Your task to perform on an android device: uninstall "File Manager" Image 0: 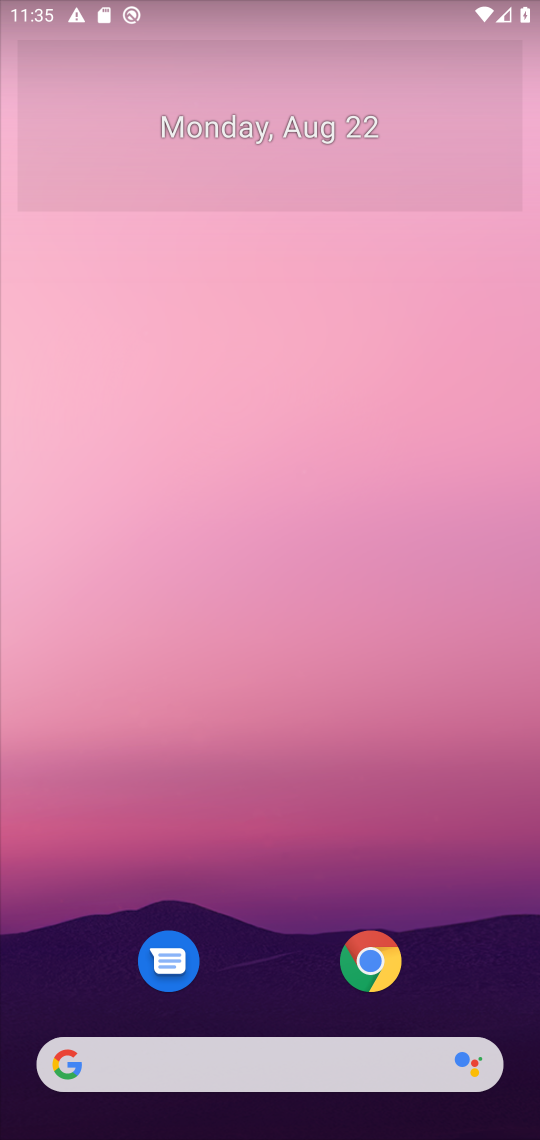
Step 0: drag from (256, 986) to (485, 6)
Your task to perform on an android device: uninstall "File Manager" Image 1: 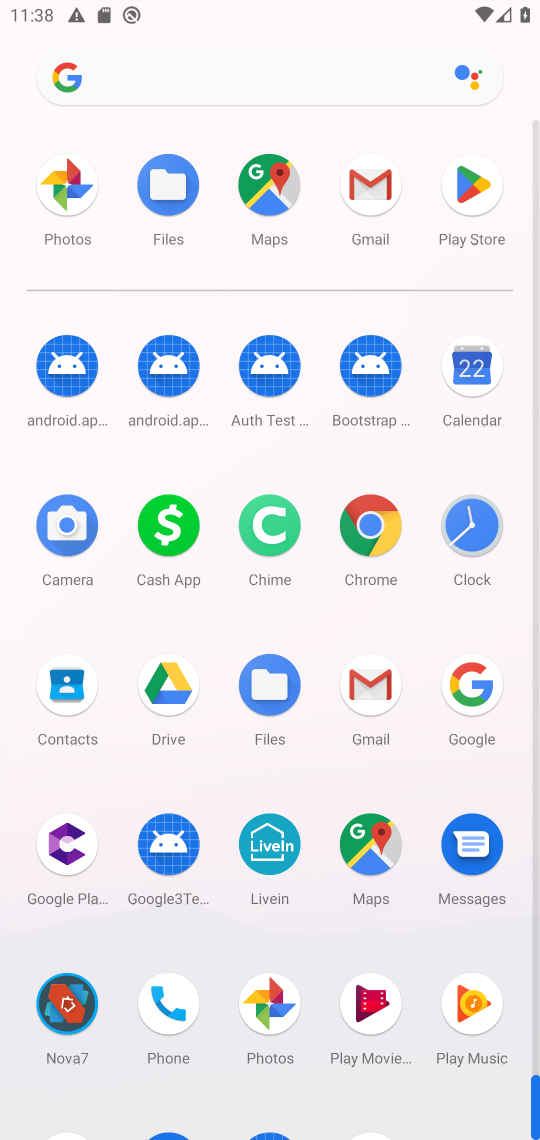
Step 1: click (179, 219)
Your task to perform on an android device: uninstall "File Manager" Image 2: 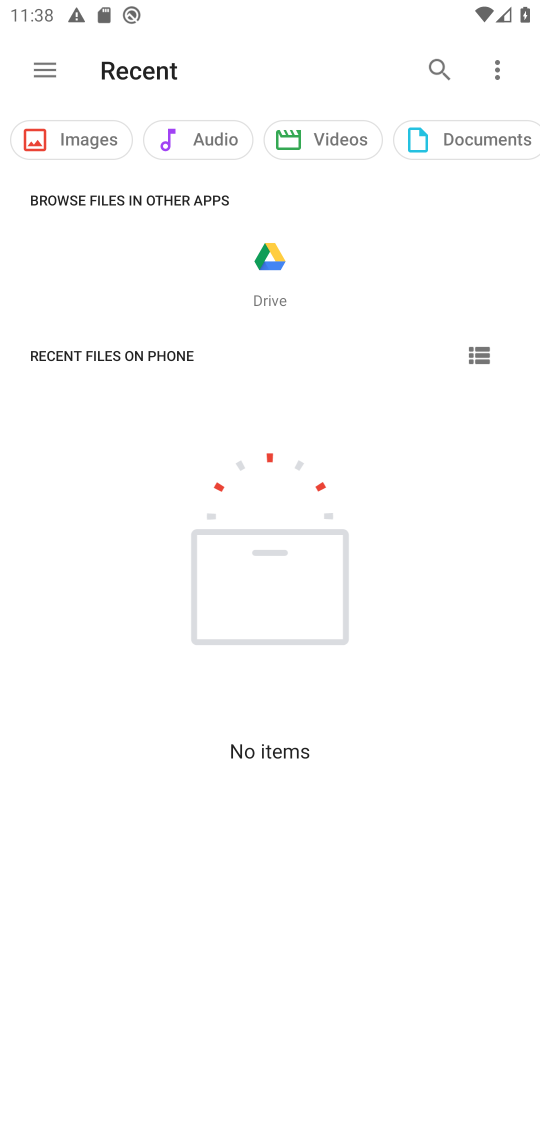
Step 2: task complete